Your task to perform on an android device: Search for sushi restaurants on Maps Image 0: 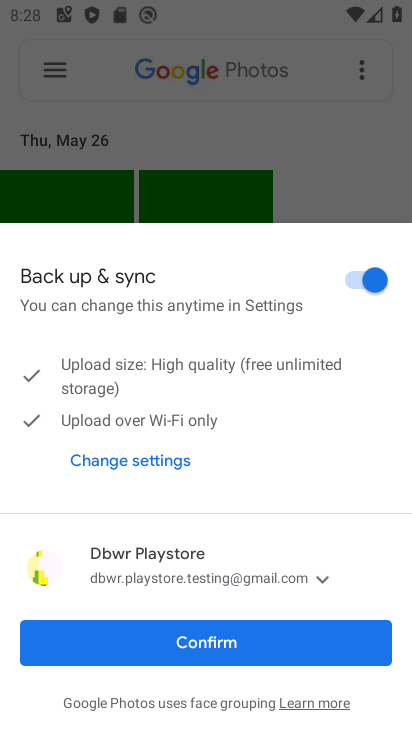
Step 0: press home button
Your task to perform on an android device: Search for sushi restaurants on Maps Image 1: 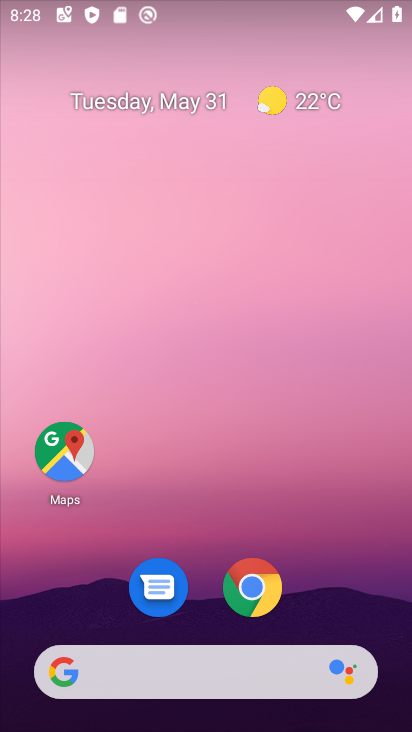
Step 1: click (63, 444)
Your task to perform on an android device: Search for sushi restaurants on Maps Image 2: 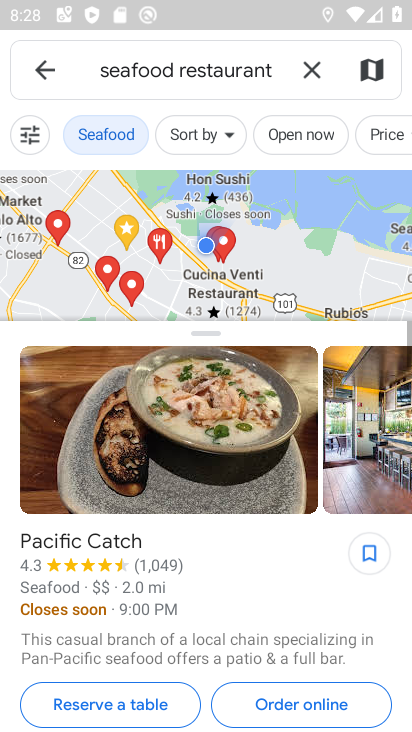
Step 2: click (307, 59)
Your task to perform on an android device: Search for sushi restaurants on Maps Image 3: 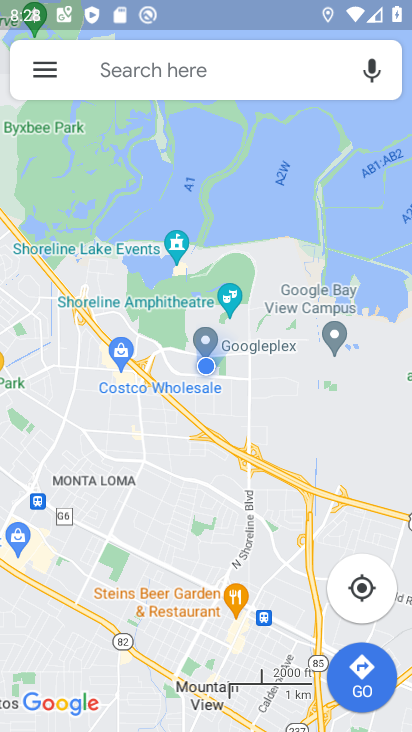
Step 3: click (141, 78)
Your task to perform on an android device: Search for sushi restaurants on Maps Image 4: 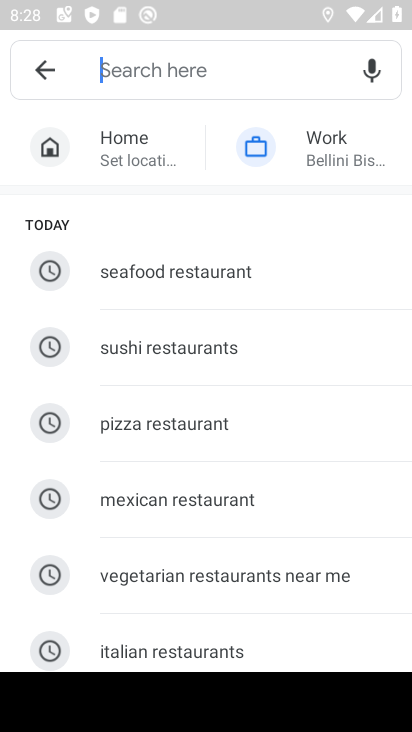
Step 4: click (120, 351)
Your task to perform on an android device: Search for sushi restaurants on Maps Image 5: 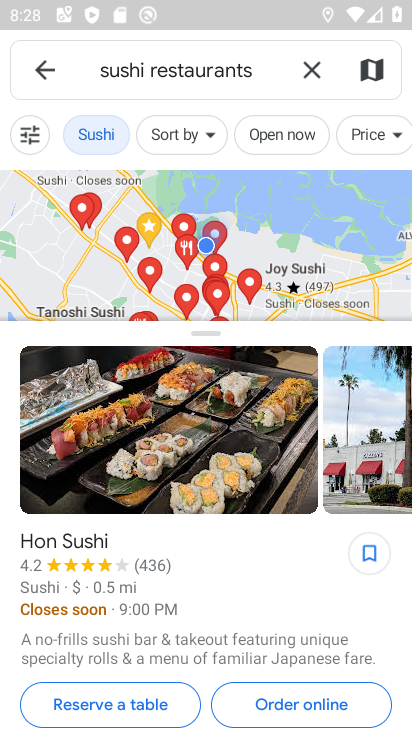
Step 5: task complete